Your task to perform on an android device: turn notification dots on Image 0: 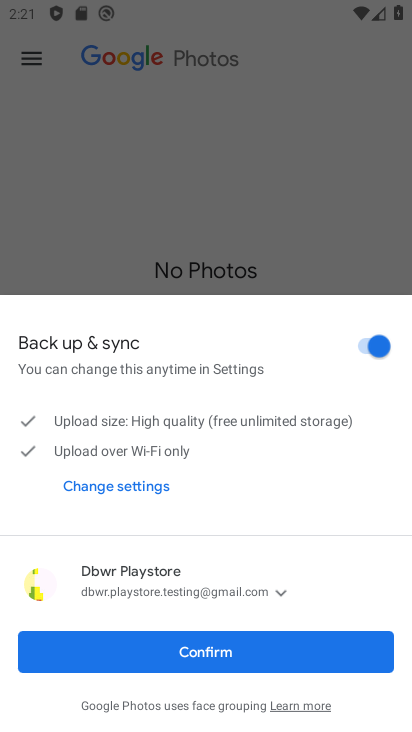
Step 0: press home button
Your task to perform on an android device: turn notification dots on Image 1: 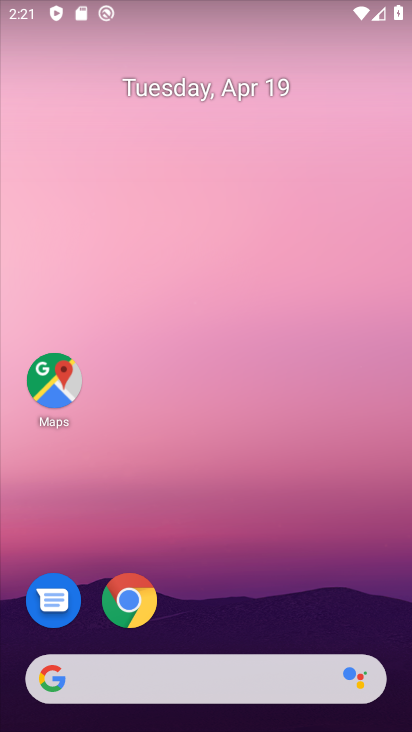
Step 1: drag from (285, 525) to (264, 105)
Your task to perform on an android device: turn notification dots on Image 2: 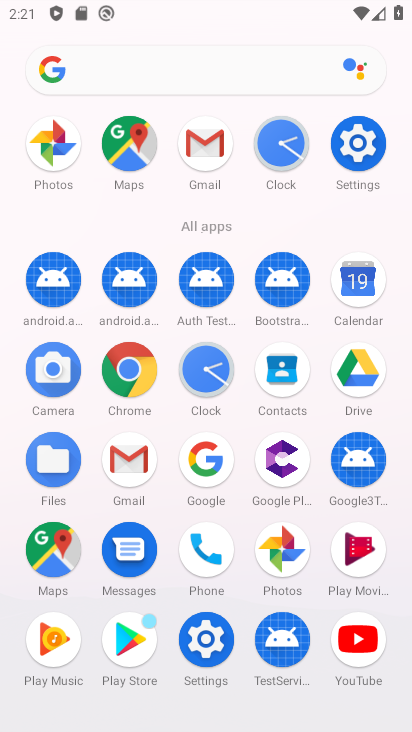
Step 2: click (219, 640)
Your task to perform on an android device: turn notification dots on Image 3: 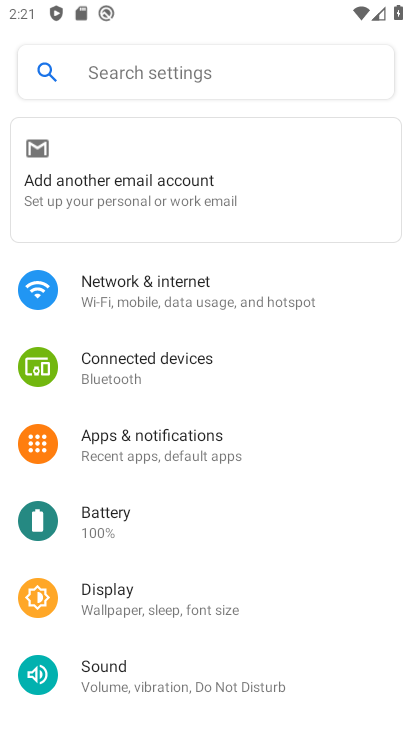
Step 3: drag from (277, 625) to (282, 149)
Your task to perform on an android device: turn notification dots on Image 4: 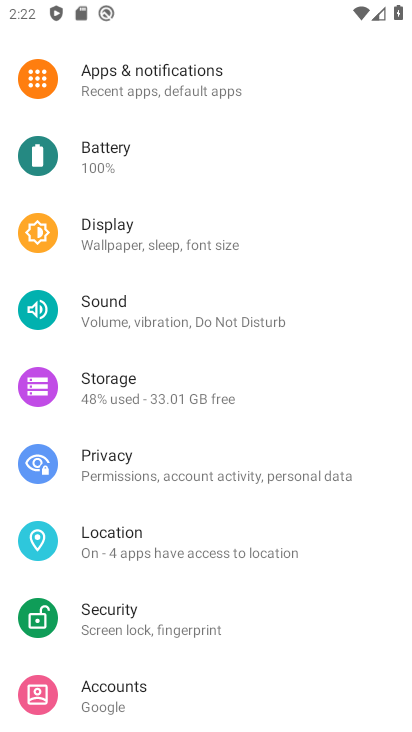
Step 4: drag from (310, 621) to (318, 208)
Your task to perform on an android device: turn notification dots on Image 5: 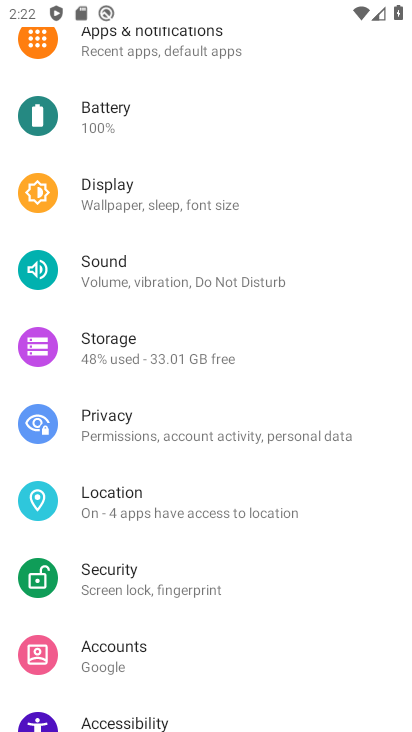
Step 5: drag from (307, 150) to (297, 626)
Your task to perform on an android device: turn notification dots on Image 6: 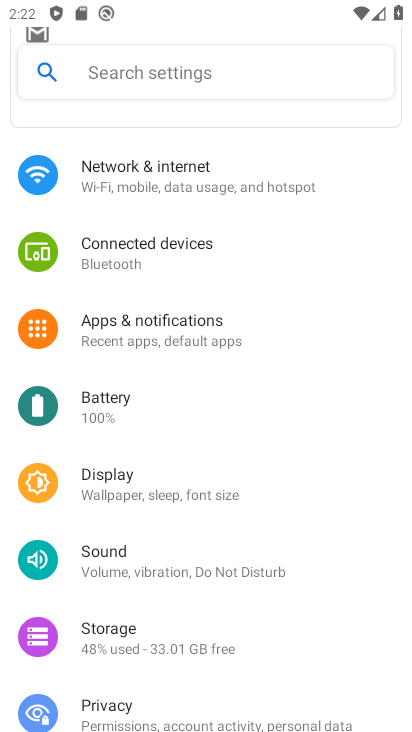
Step 6: click (181, 330)
Your task to perform on an android device: turn notification dots on Image 7: 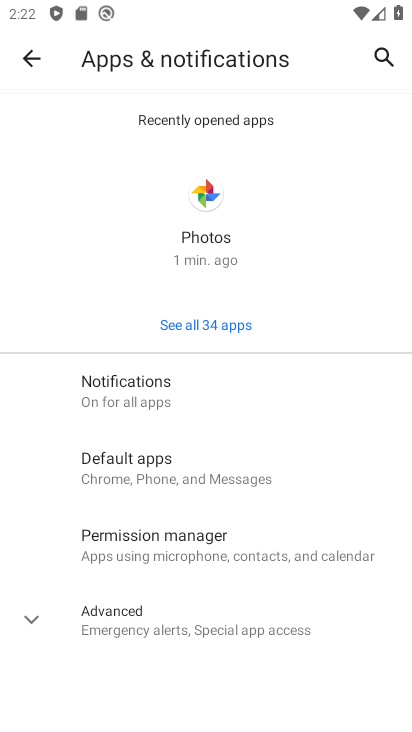
Step 7: click (70, 614)
Your task to perform on an android device: turn notification dots on Image 8: 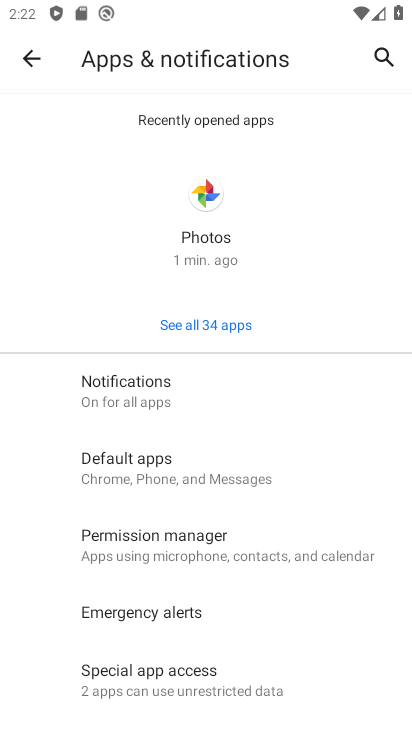
Step 8: drag from (309, 638) to (320, 206)
Your task to perform on an android device: turn notification dots on Image 9: 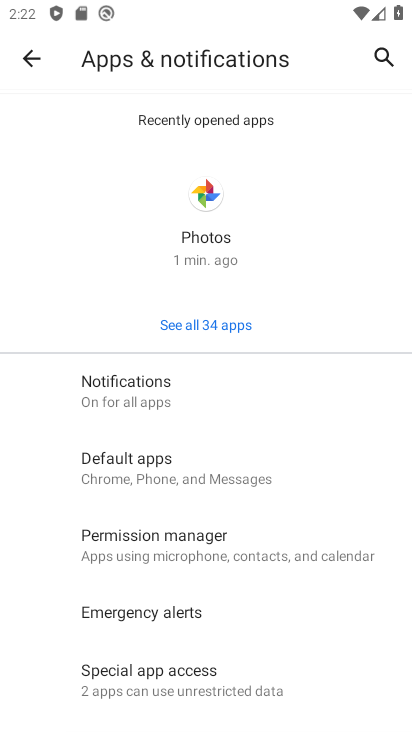
Step 9: click (145, 379)
Your task to perform on an android device: turn notification dots on Image 10: 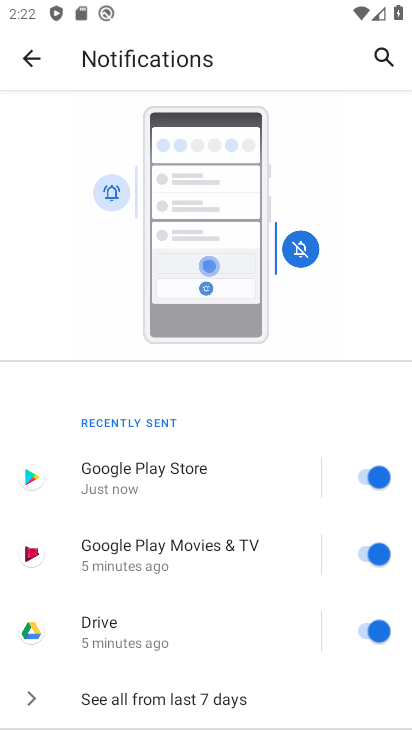
Step 10: drag from (284, 617) to (302, 113)
Your task to perform on an android device: turn notification dots on Image 11: 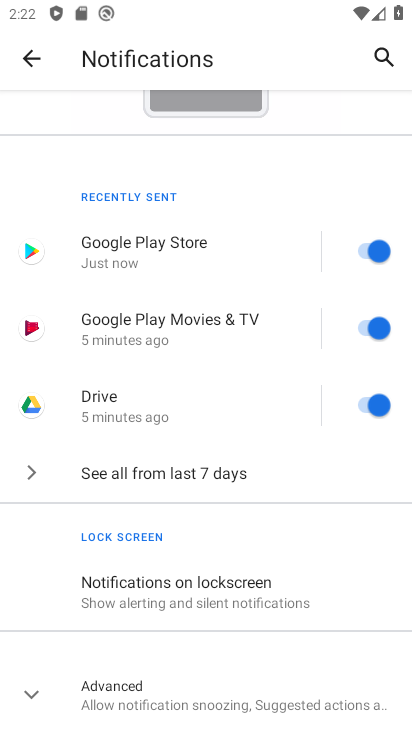
Step 11: drag from (291, 668) to (299, 240)
Your task to perform on an android device: turn notification dots on Image 12: 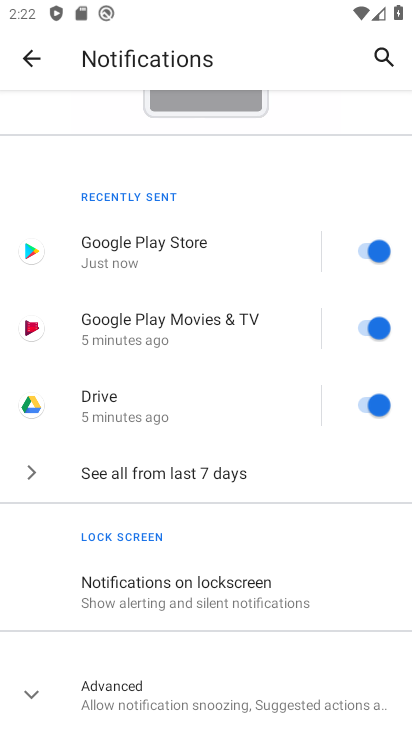
Step 12: click (78, 695)
Your task to perform on an android device: turn notification dots on Image 13: 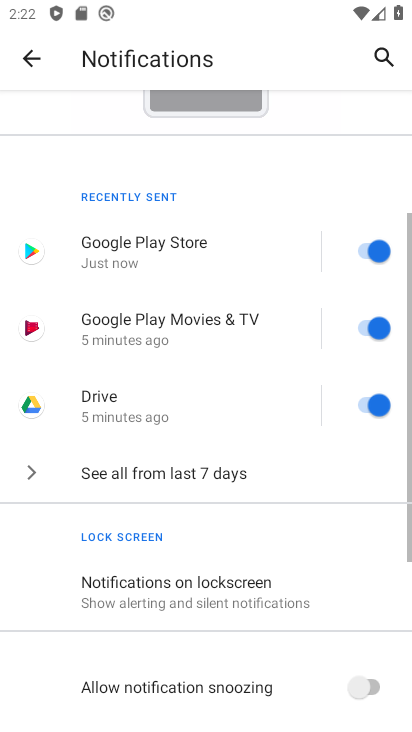
Step 13: task complete